Your task to perform on an android device: turn smart compose on in the gmail app Image 0: 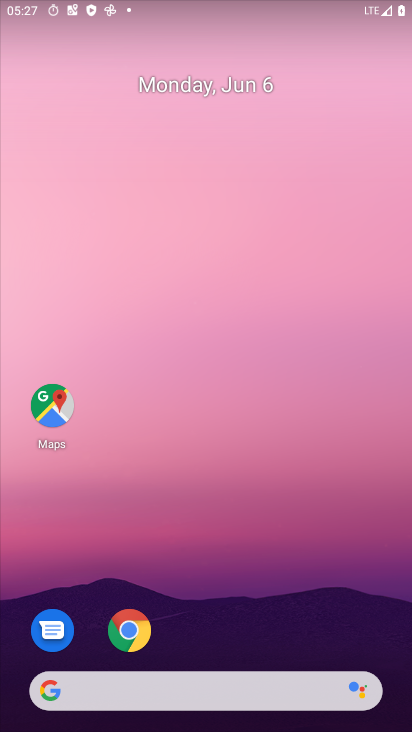
Step 0: drag from (257, 626) to (272, 32)
Your task to perform on an android device: turn smart compose on in the gmail app Image 1: 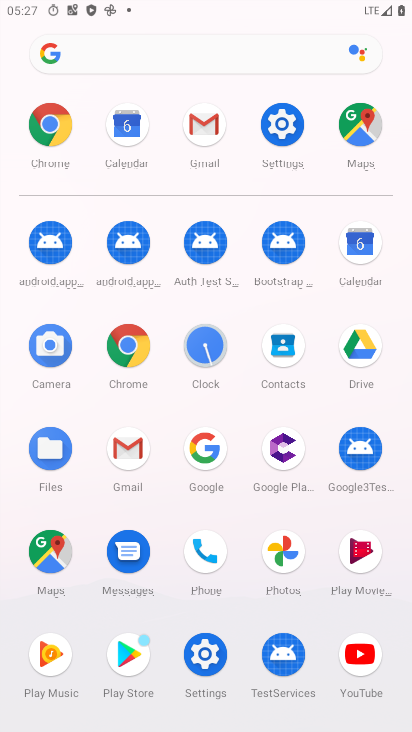
Step 1: click (118, 443)
Your task to perform on an android device: turn smart compose on in the gmail app Image 2: 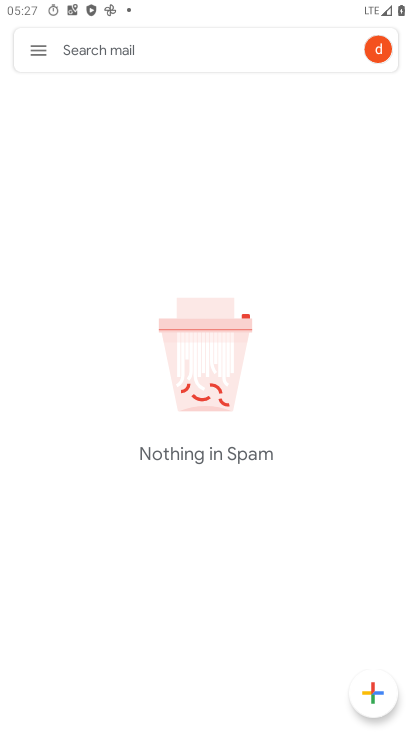
Step 2: click (33, 47)
Your task to perform on an android device: turn smart compose on in the gmail app Image 3: 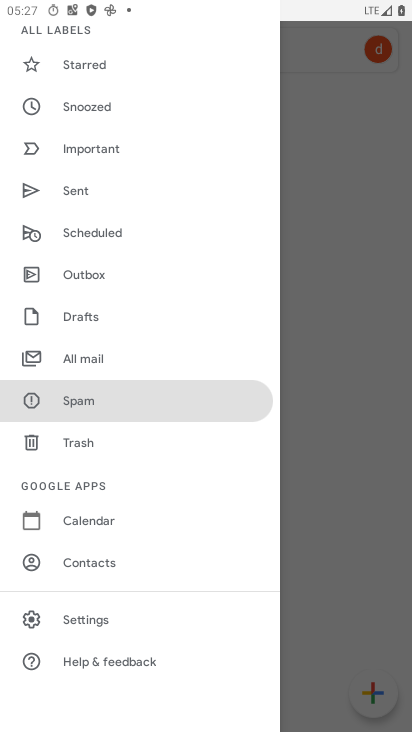
Step 3: click (88, 623)
Your task to perform on an android device: turn smart compose on in the gmail app Image 4: 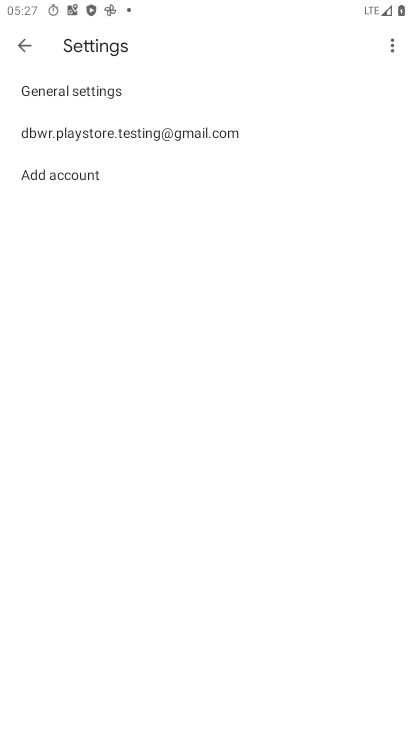
Step 4: click (133, 125)
Your task to perform on an android device: turn smart compose on in the gmail app Image 5: 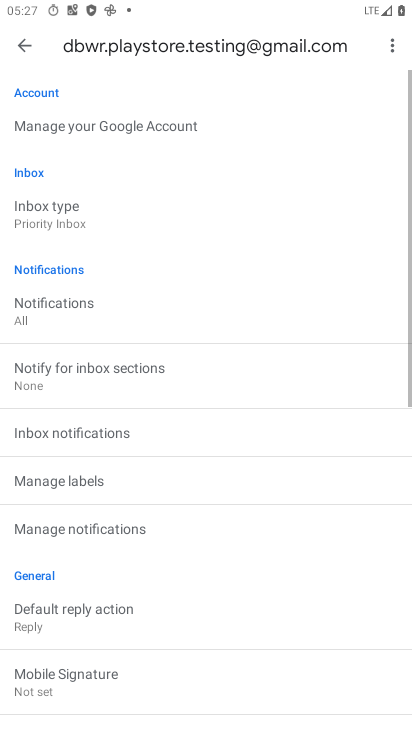
Step 5: drag from (163, 613) to (237, 179)
Your task to perform on an android device: turn smart compose on in the gmail app Image 6: 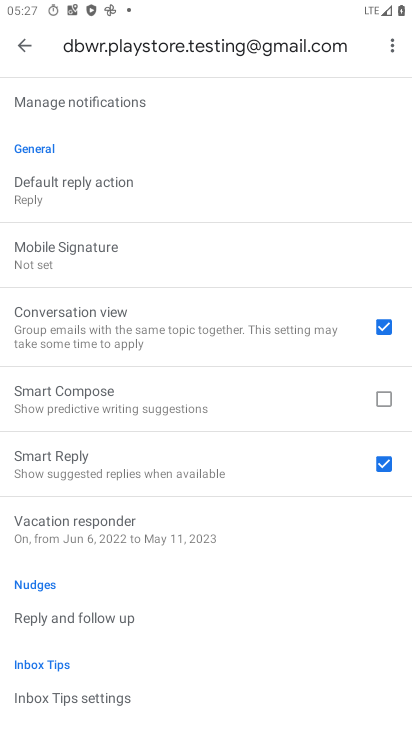
Step 6: click (386, 399)
Your task to perform on an android device: turn smart compose on in the gmail app Image 7: 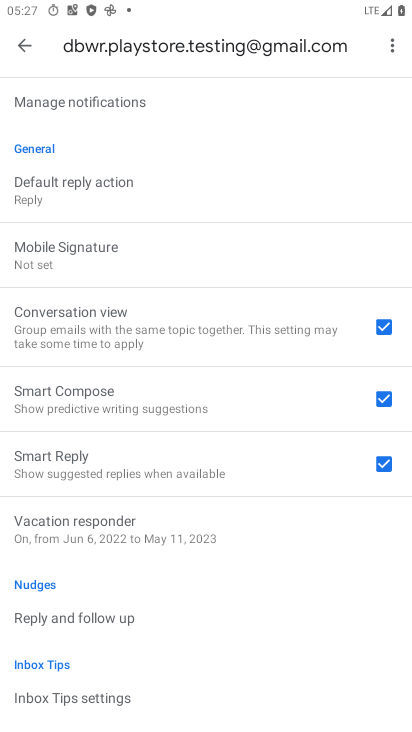
Step 7: task complete